Your task to perform on an android device: turn on showing notifications on the lock screen Image 0: 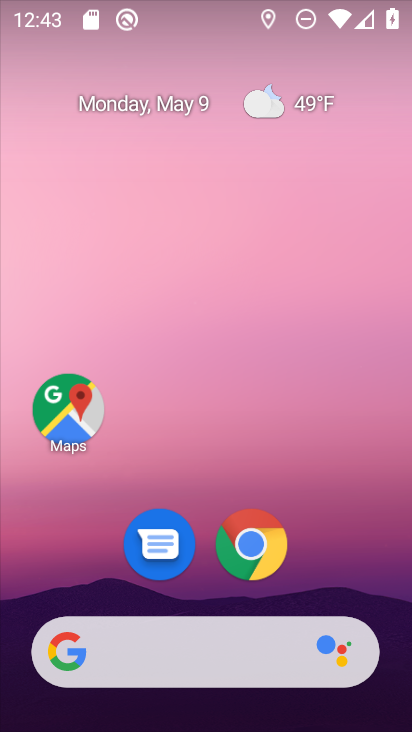
Step 0: drag from (369, 506) to (383, 55)
Your task to perform on an android device: turn on showing notifications on the lock screen Image 1: 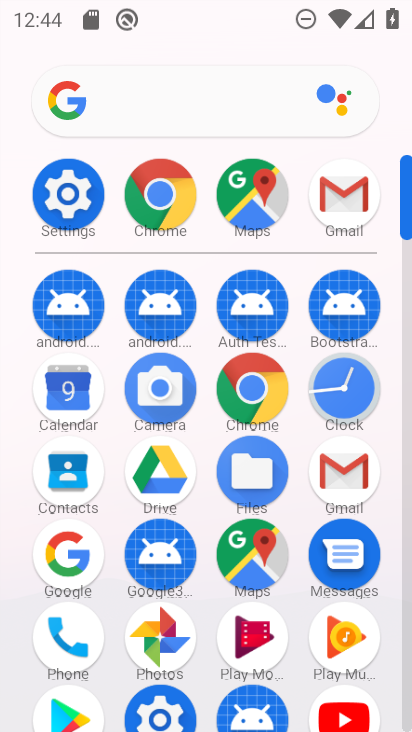
Step 1: click (59, 218)
Your task to perform on an android device: turn on showing notifications on the lock screen Image 2: 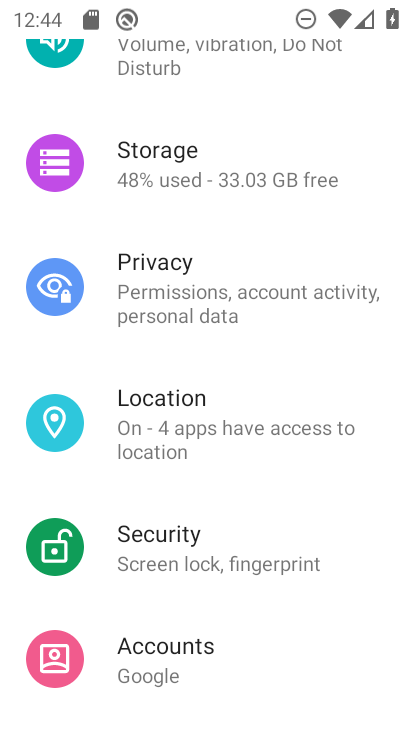
Step 2: drag from (86, 300) to (138, 652)
Your task to perform on an android device: turn on showing notifications on the lock screen Image 3: 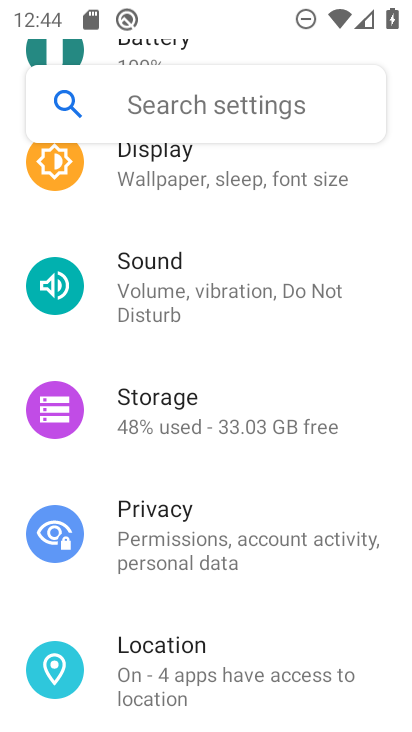
Step 3: drag from (229, 267) to (222, 662)
Your task to perform on an android device: turn on showing notifications on the lock screen Image 4: 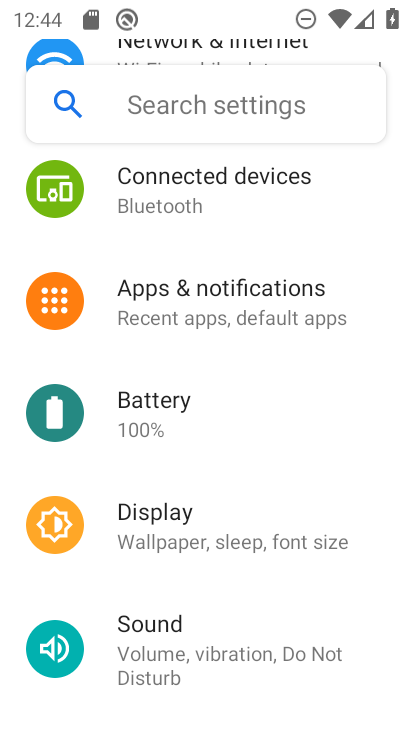
Step 4: click (300, 293)
Your task to perform on an android device: turn on showing notifications on the lock screen Image 5: 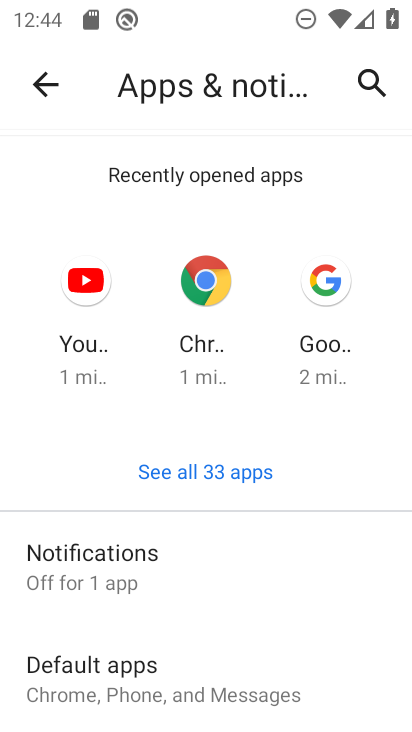
Step 5: click (123, 563)
Your task to perform on an android device: turn on showing notifications on the lock screen Image 6: 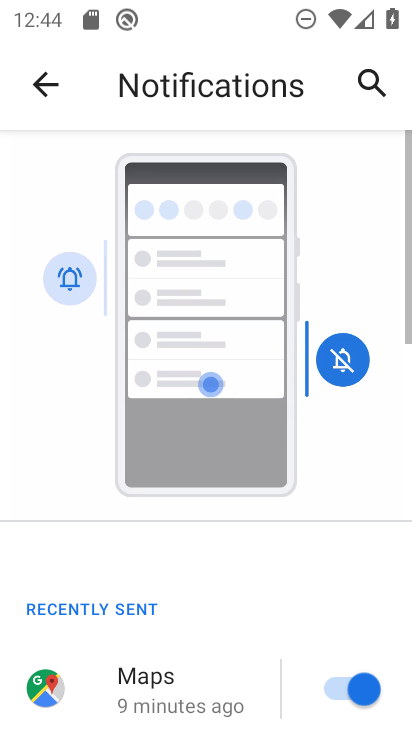
Step 6: drag from (195, 631) to (280, 263)
Your task to perform on an android device: turn on showing notifications on the lock screen Image 7: 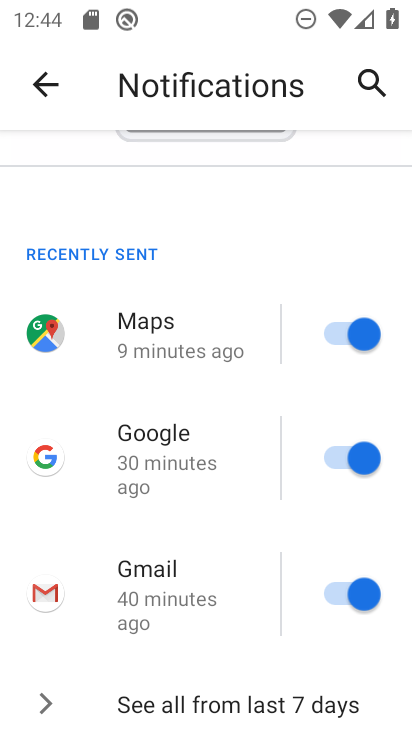
Step 7: drag from (262, 632) to (187, 289)
Your task to perform on an android device: turn on showing notifications on the lock screen Image 8: 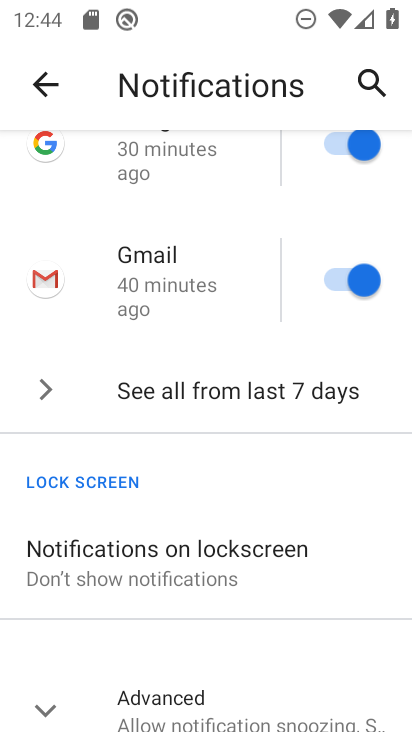
Step 8: click (147, 592)
Your task to perform on an android device: turn on showing notifications on the lock screen Image 9: 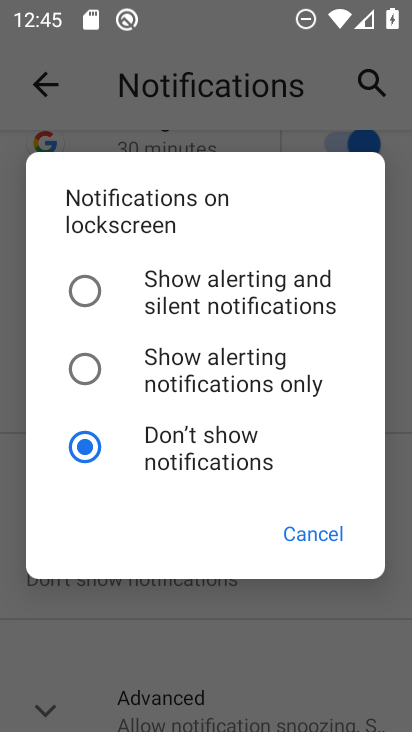
Step 9: click (99, 292)
Your task to perform on an android device: turn on showing notifications on the lock screen Image 10: 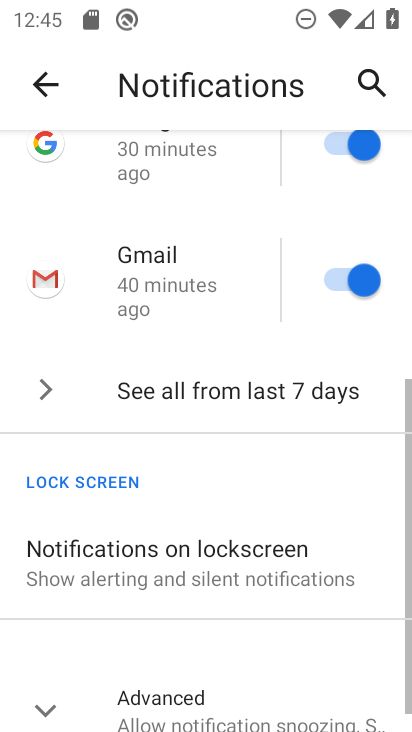
Step 10: task complete